Your task to perform on an android device: toggle data saver in the chrome app Image 0: 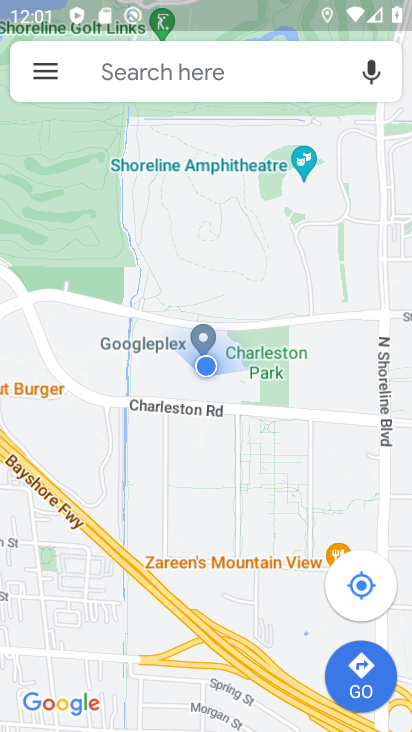
Step 0: press home button
Your task to perform on an android device: toggle data saver in the chrome app Image 1: 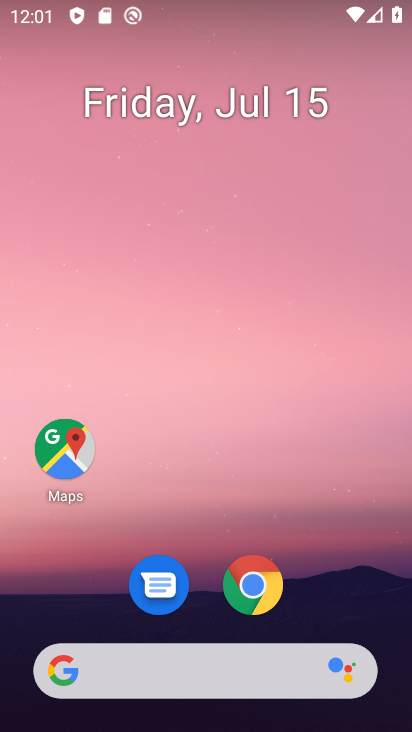
Step 1: click (263, 589)
Your task to perform on an android device: toggle data saver in the chrome app Image 2: 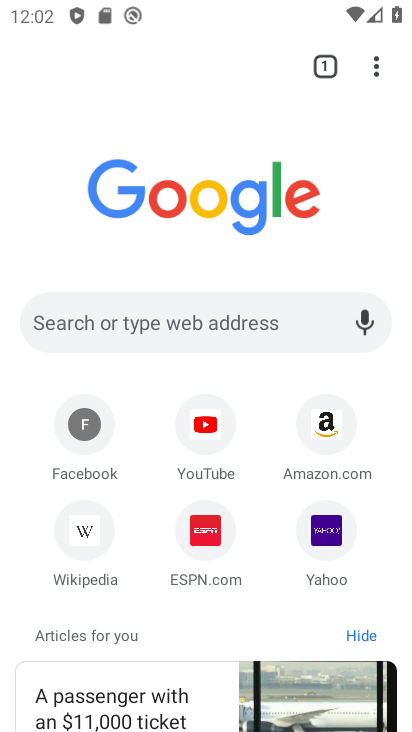
Step 2: click (378, 63)
Your task to perform on an android device: toggle data saver in the chrome app Image 3: 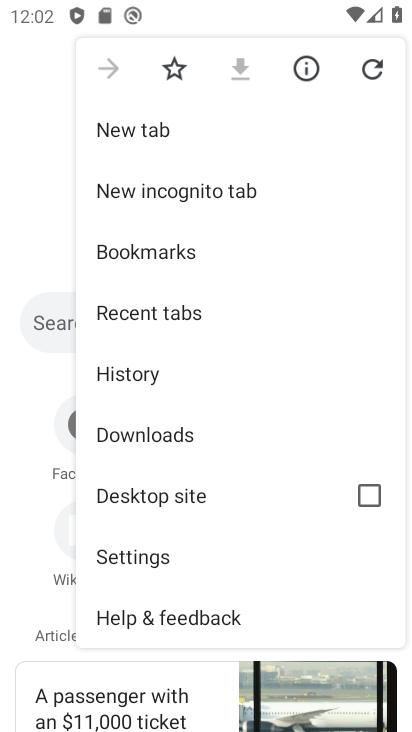
Step 3: click (151, 560)
Your task to perform on an android device: toggle data saver in the chrome app Image 4: 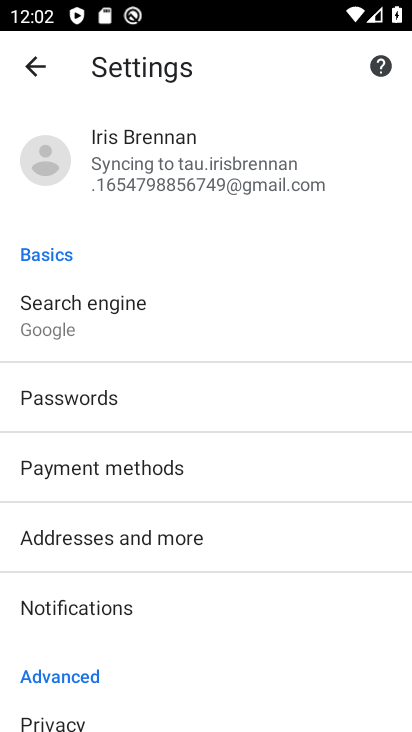
Step 4: drag from (215, 642) to (285, 225)
Your task to perform on an android device: toggle data saver in the chrome app Image 5: 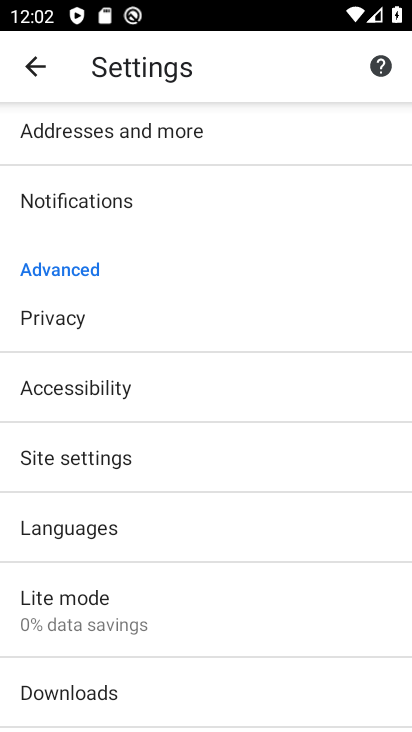
Step 5: click (170, 622)
Your task to perform on an android device: toggle data saver in the chrome app Image 6: 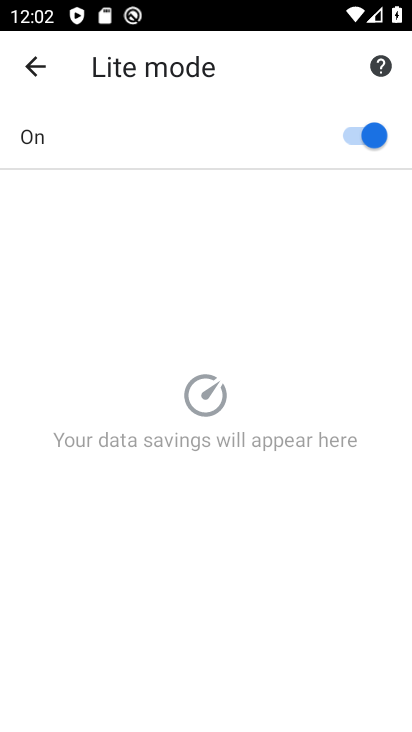
Step 6: click (372, 138)
Your task to perform on an android device: toggle data saver in the chrome app Image 7: 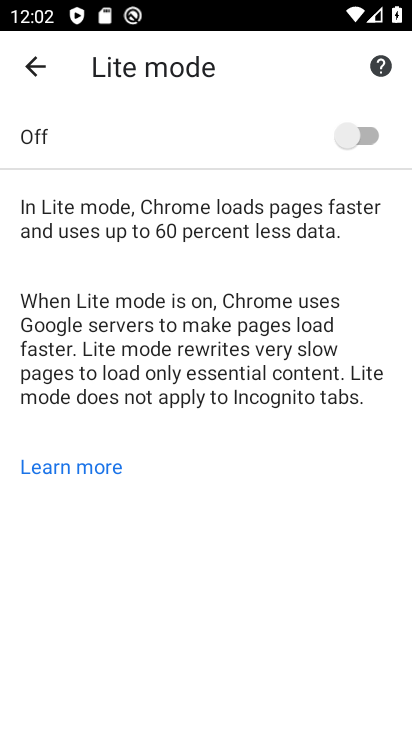
Step 7: task complete